Your task to perform on an android device: snooze an email in the gmail app Image 0: 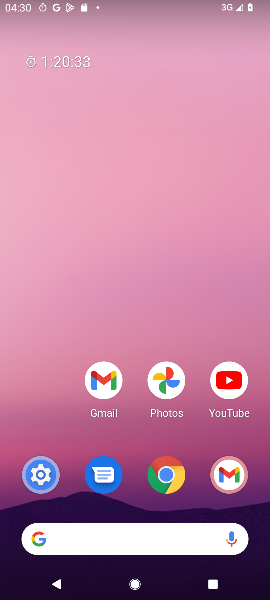
Step 0: press home button
Your task to perform on an android device: snooze an email in the gmail app Image 1: 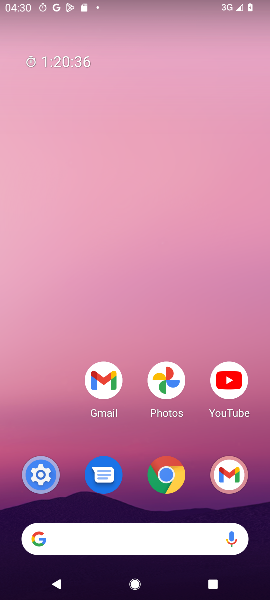
Step 1: drag from (57, 434) to (48, 212)
Your task to perform on an android device: snooze an email in the gmail app Image 2: 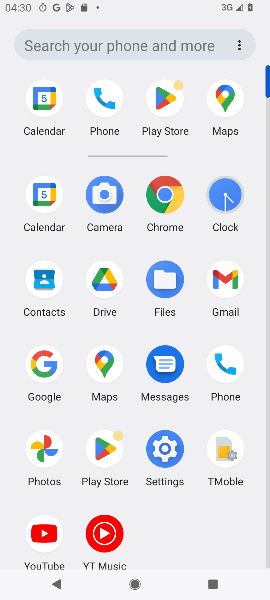
Step 2: click (231, 281)
Your task to perform on an android device: snooze an email in the gmail app Image 3: 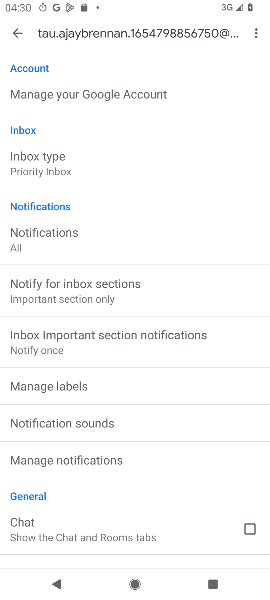
Step 3: drag from (231, 196) to (228, 238)
Your task to perform on an android device: snooze an email in the gmail app Image 4: 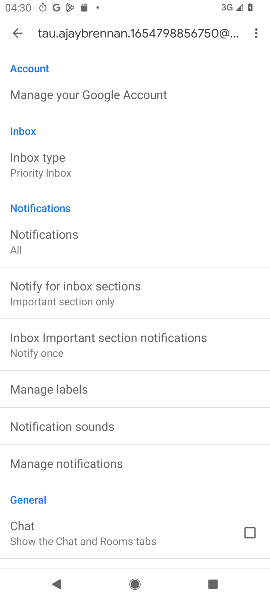
Step 4: press back button
Your task to perform on an android device: snooze an email in the gmail app Image 5: 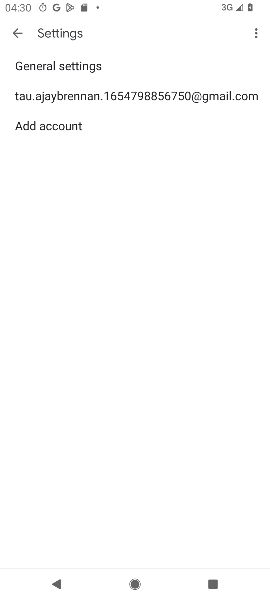
Step 5: press back button
Your task to perform on an android device: snooze an email in the gmail app Image 6: 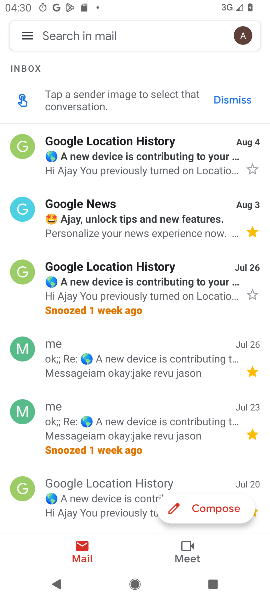
Step 6: click (25, 32)
Your task to perform on an android device: snooze an email in the gmail app Image 7: 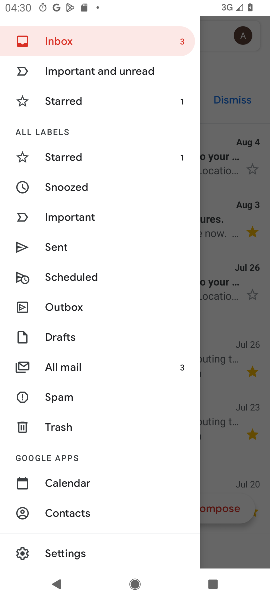
Step 7: click (84, 188)
Your task to perform on an android device: snooze an email in the gmail app Image 8: 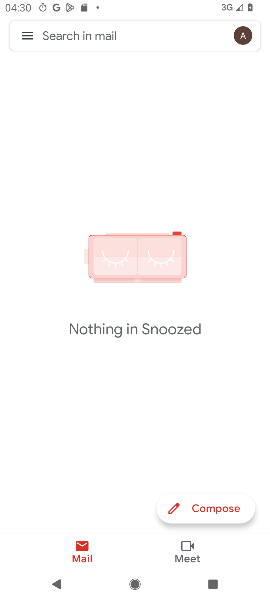
Step 8: task complete